Your task to perform on an android device: turn pop-ups on in chrome Image 0: 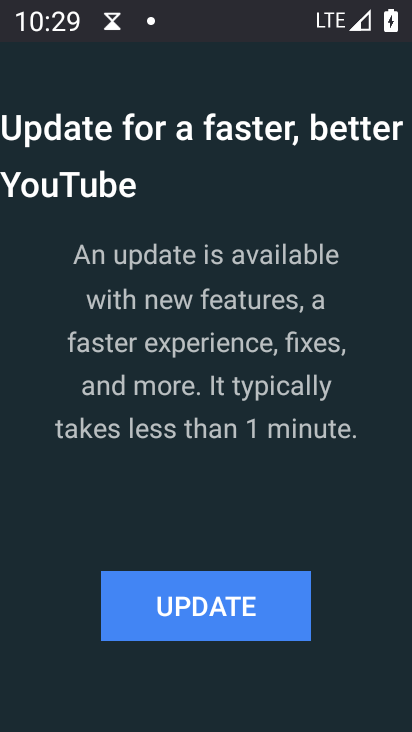
Step 0: press back button
Your task to perform on an android device: turn pop-ups on in chrome Image 1: 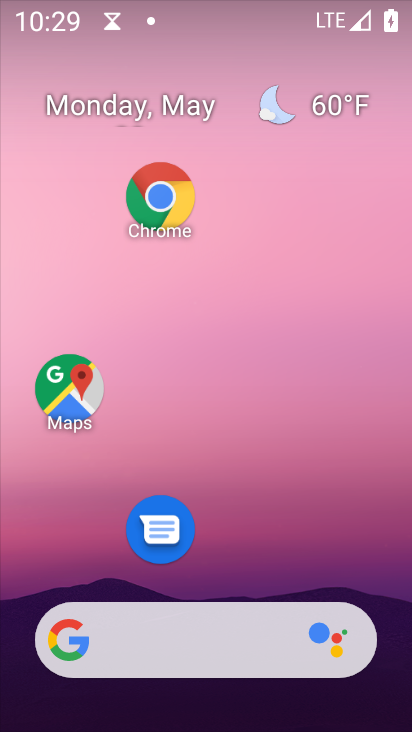
Step 1: click (153, 194)
Your task to perform on an android device: turn pop-ups on in chrome Image 2: 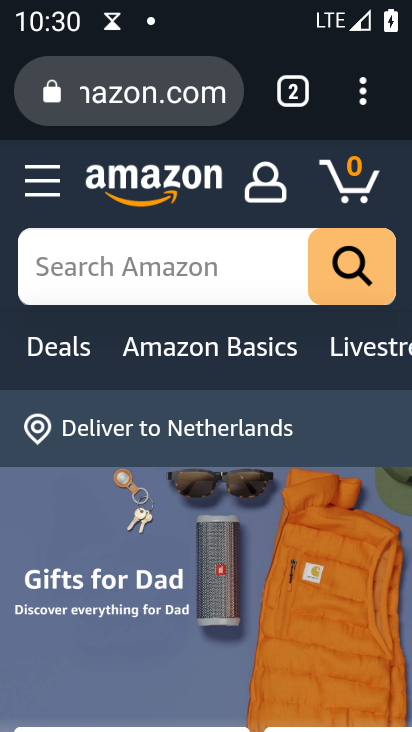
Step 2: click (362, 97)
Your task to perform on an android device: turn pop-ups on in chrome Image 3: 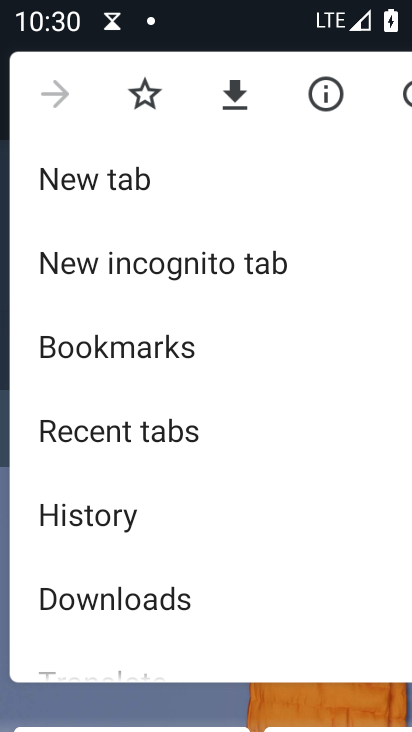
Step 3: drag from (160, 553) to (134, 282)
Your task to perform on an android device: turn pop-ups on in chrome Image 4: 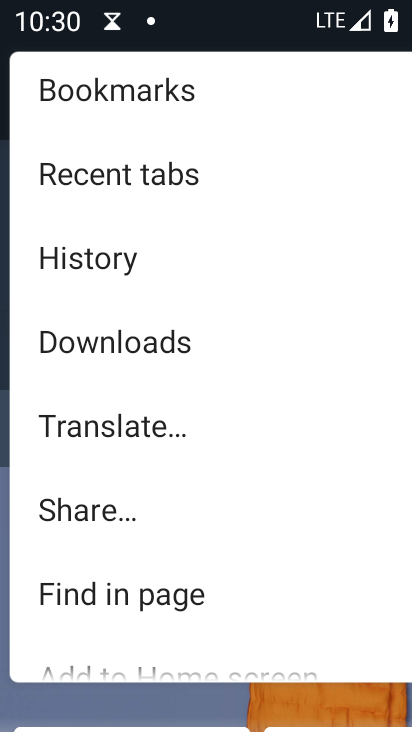
Step 4: drag from (111, 612) to (102, 375)
Your task to perform on an android device: turn pop-ups on in chrome Image 5: 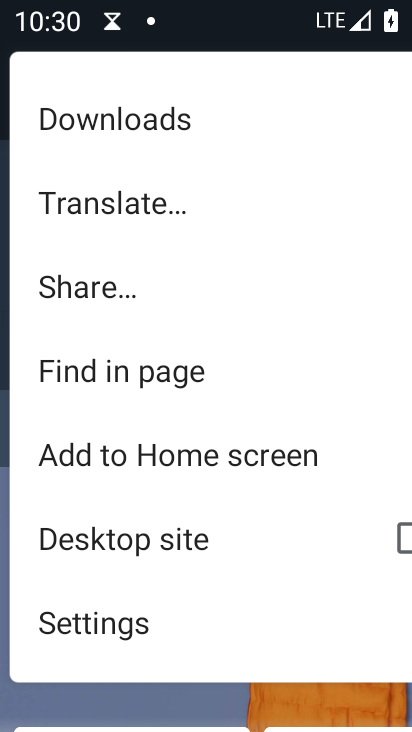
Step 5: click (116, 635)
Your task to perform on an android device: turn pop-ups on in chrome Image 6: 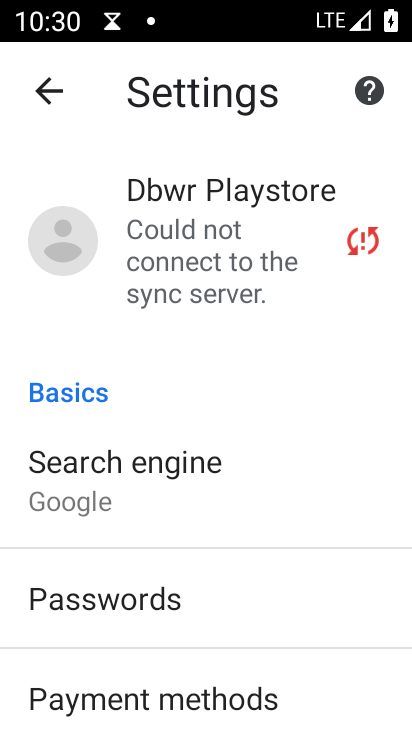
Step 6: drag from (208, 675) to (204, 356)
Your task to perform on an android device: turn pop-ups on in chrome Image 7: 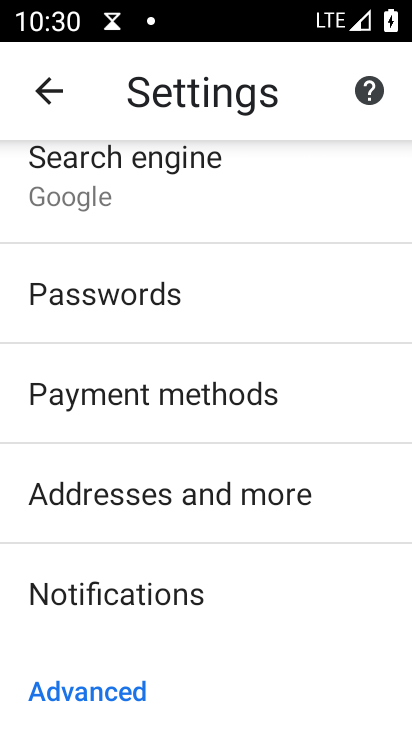
Step 7: drag from (212, 640) to (195, 376)
Your task to perform on an android device: turn pop-ups on in chrome Image 8: 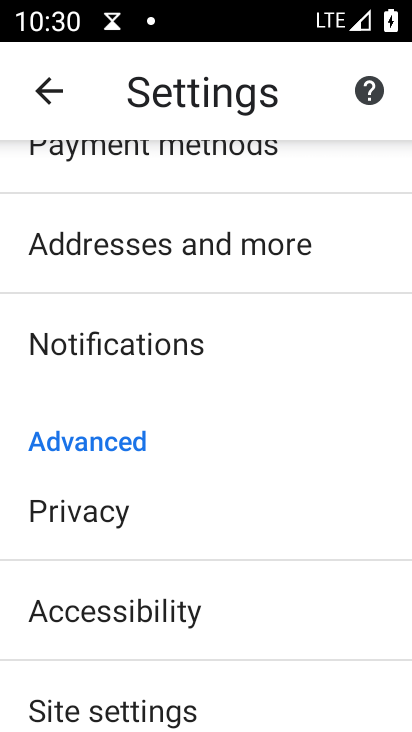
Step 8: click (122, 711)
Your task to perform on an android device: turn pop-ups on in chrome Image 9: 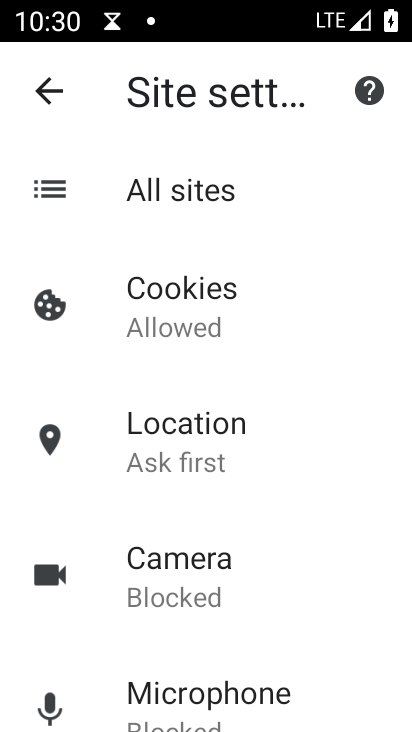
Step 9: drag from (146, 680) to (176, 251)
Your task to perform on an android device: turn pop-ups on in chrome Image 10: 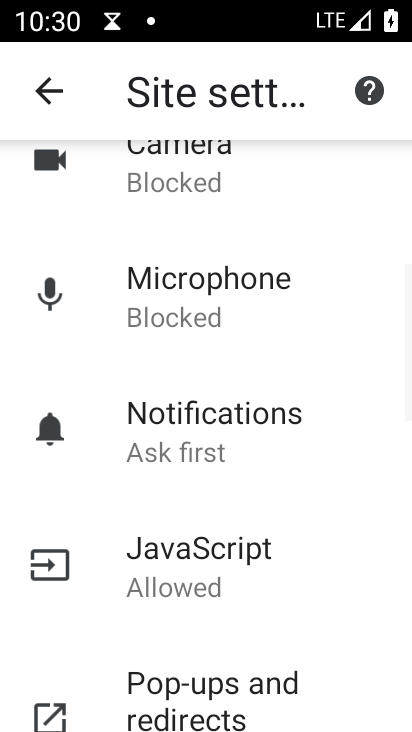
Step 10: click (192, 688)
Your task to perform on an android device: turn pop-ups on in chrome Image 11: 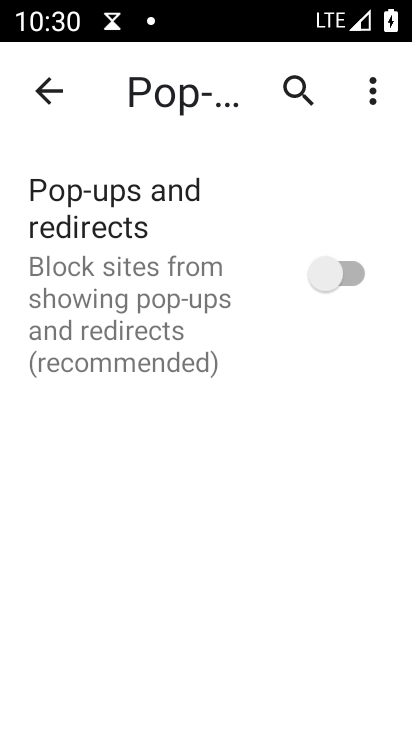
Step 11: click (364, 279)
Your task to perform on an android device: turn pop-ups on in chrome Image 12: 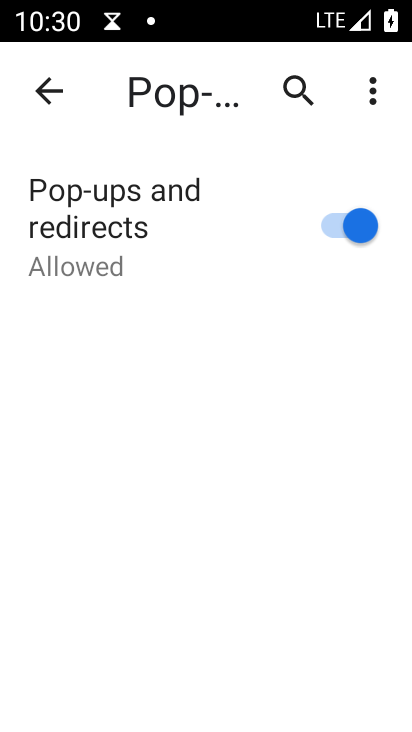
Step 12: task complete